Your task to perform on an android device: create a new album in the google photos Image 0: 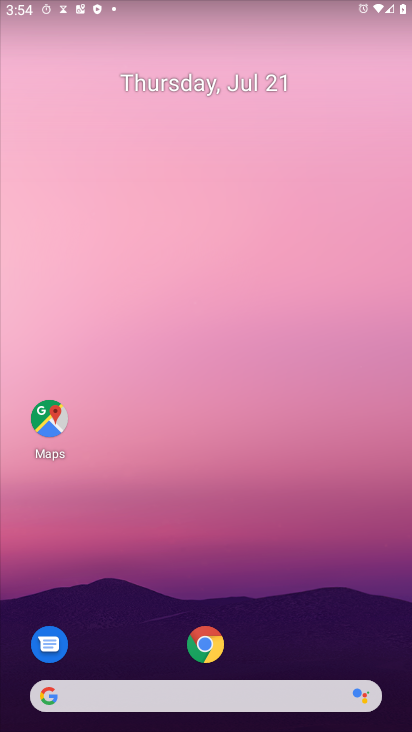
Step 0: press home button
Your task to perform on an android device: create a new album in the google photos Image 1: 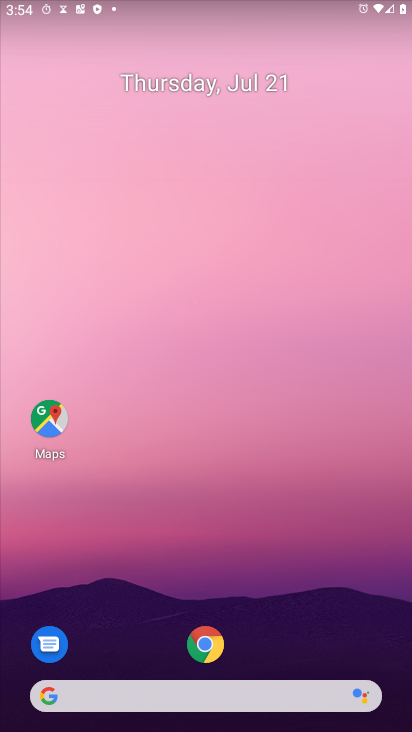
Step 1: drag from (320, 622) to (366, 327)
Your task to perform on an android device: create a new album in the google photos Image 2: 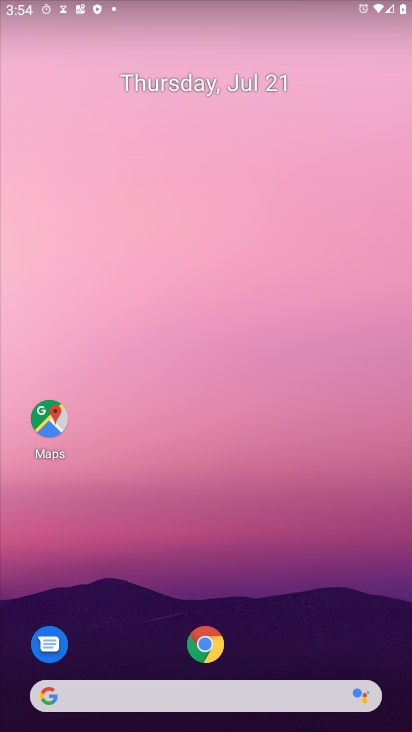
Step 2: drag from (306, 158) to (300, 20)
Your task to perform on an android device: create a new album in the google photos Image 3: 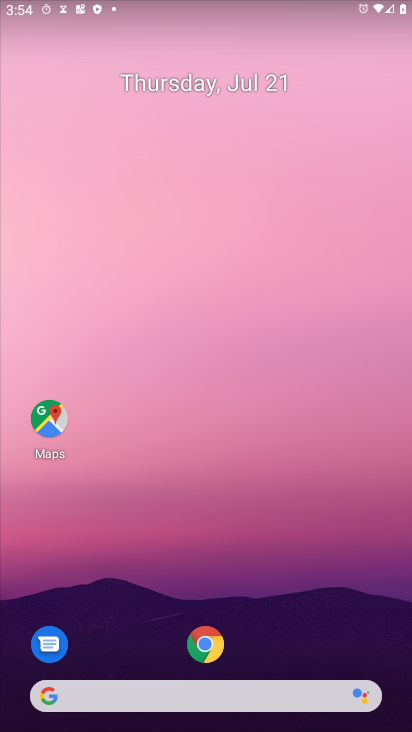
Step 3: drag from (288, 557) to (410, 705)
Your task to perform on an android device: create a new album in the google photos Image 4: 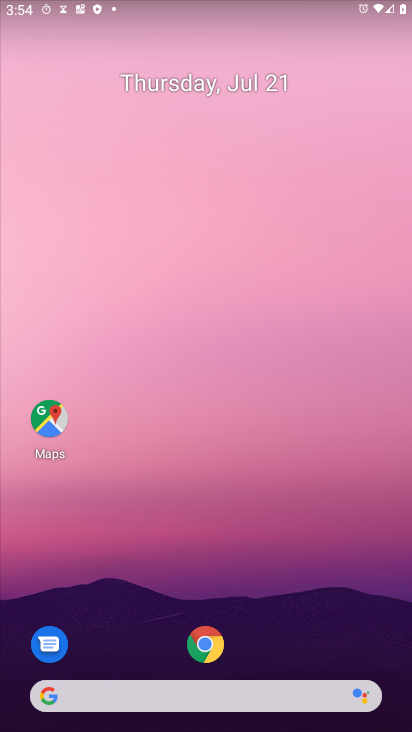
Step 4: drag from (315, 628) to (409, 730)
Your task to perform on an android device: create a new album in the google photos Image 5: 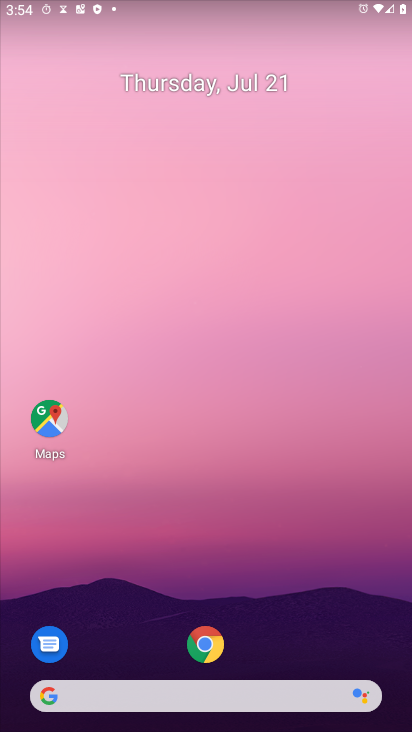
Step 5: drag from (269, 552) to (308, 1)
Your task to perform on an android device: create a new album in the google photos Image 6: 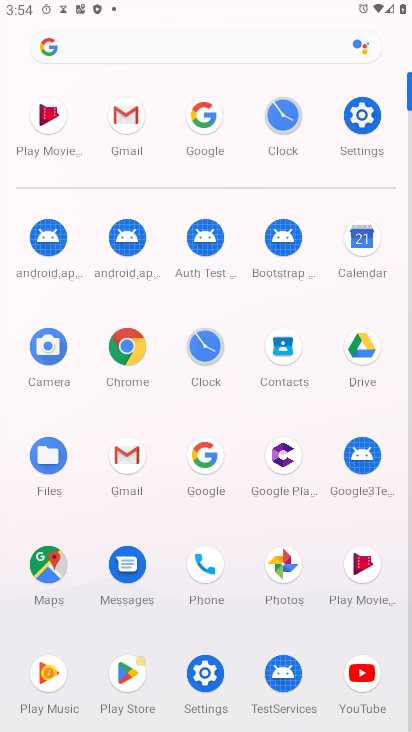
Step 6: click (276, 564)
Your task to perform on an android device: create a new album in the google photos Image 7: 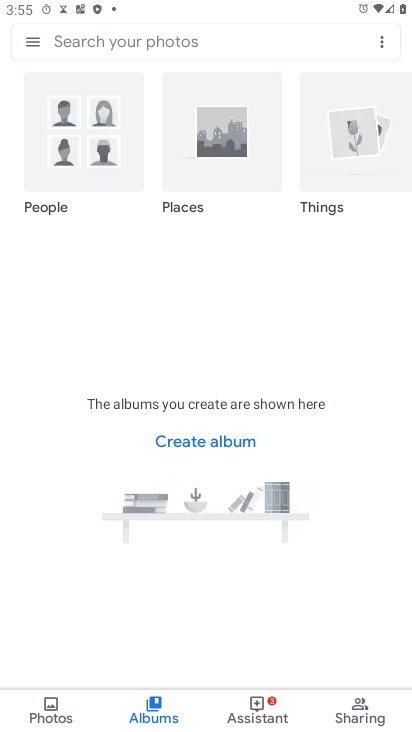
Step 7: click (32, 712)
Your task to perform on an android device: create a new album in the google photos Image 8: 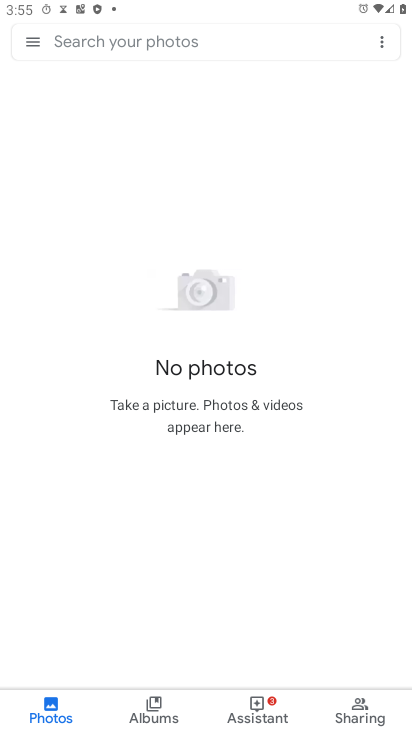
Step 8: task complete